Your task to perform on an android device: toggle airplane mode Image 0: 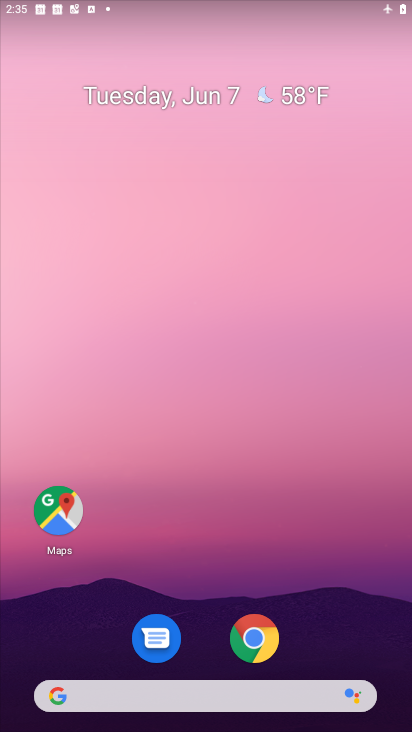
Step 0: drag from (210, 658) to (251, 172)
Your task to perform on an android device: toggle airplane mode Image 1: 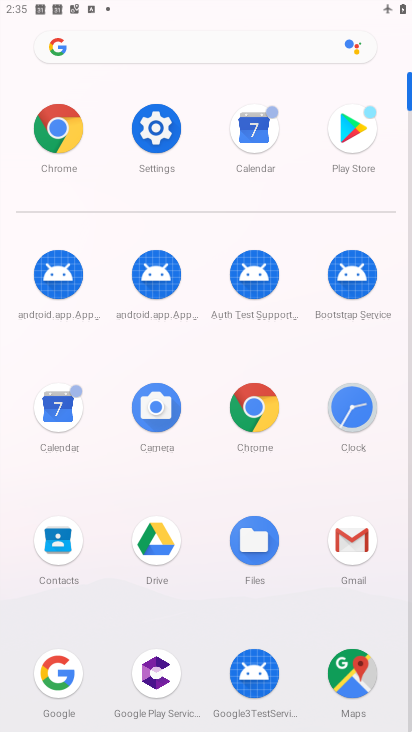
Step 1: click (161, 129)
Your task to perform on an android device: toggle airplane mode Image 2: 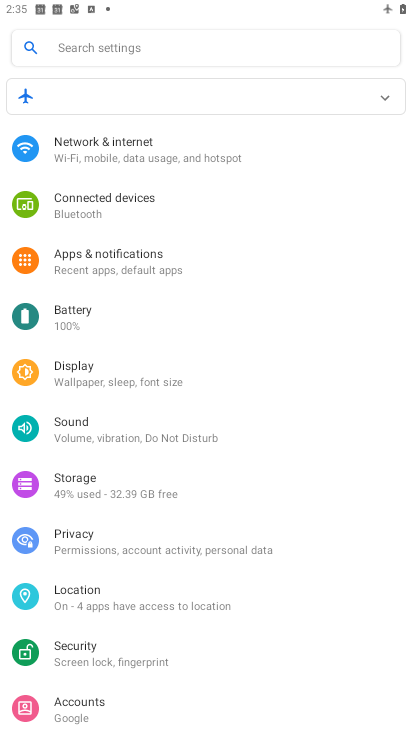
Step 2: click (149, 166)
Your task to perform on an android device: toggle airplane mode Image 3: 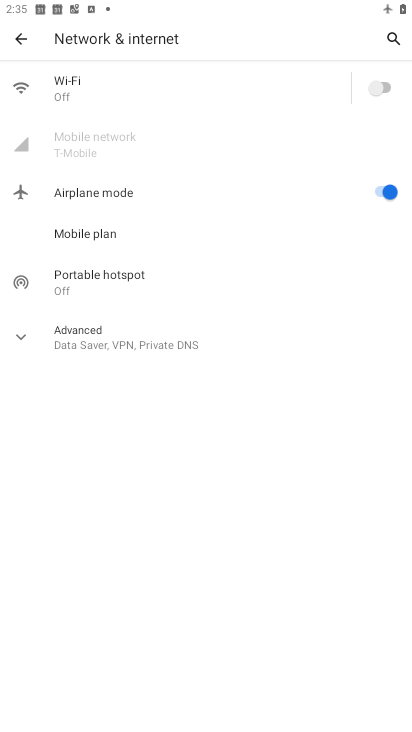
Step 3: click (376, 191)
Your task to perform on an android device: toggle airplane mode Image 4: 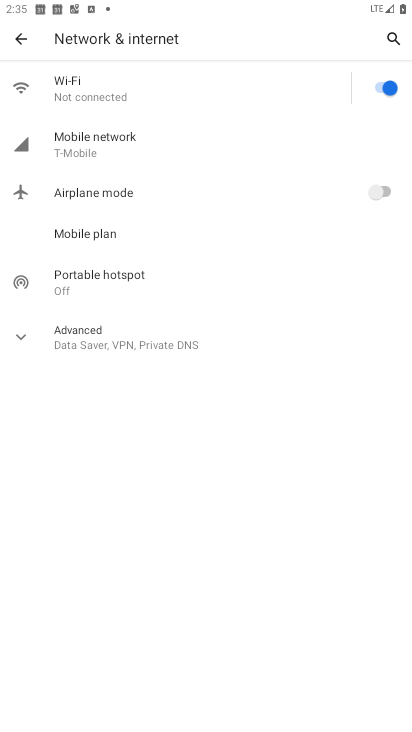
Step 4: task complete